Your task to perform on an android device: What's the weather? Image 0: 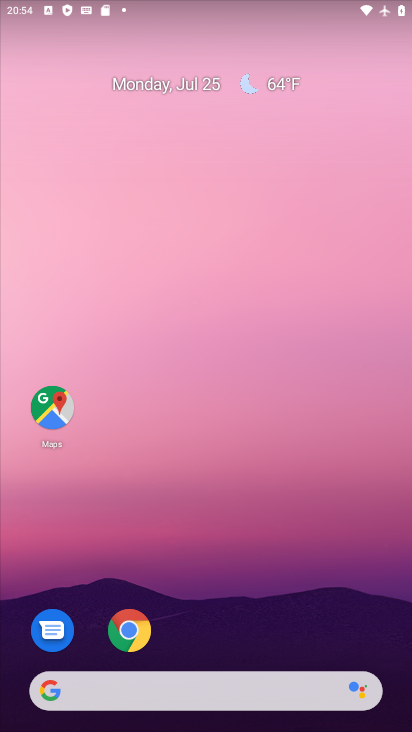
Step 0: click (277, 89)
Your task to perform on an android device: What's the weather? Image 1: 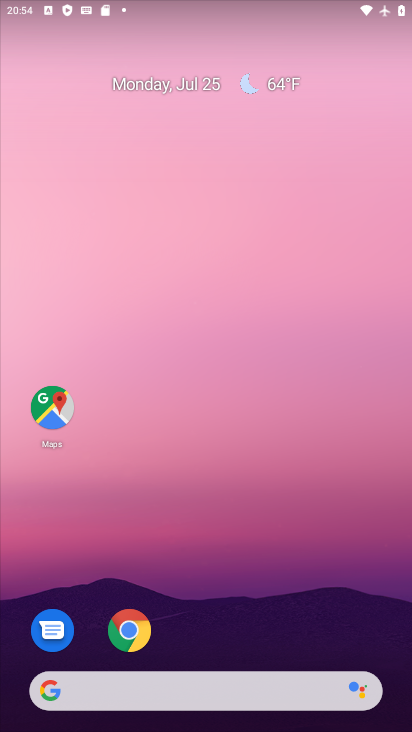
Step 1: click (292, 83)
Your task to perform on an android device: What's the weather? Image 2: 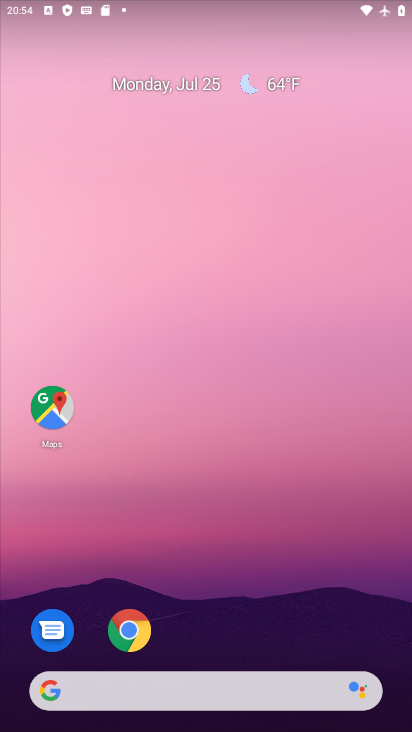
Step 2: click (131, 690)
Your task to perform on an android device: What's the weather? Image 3: 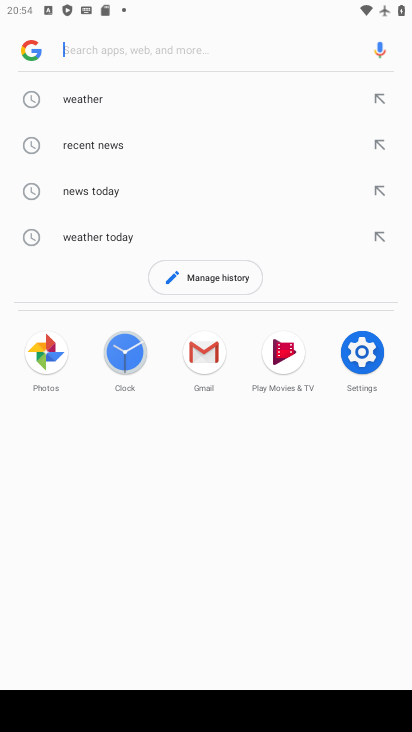
Step 3: click (88, 107)
Your task to perform on an android device: What's the weather? Image 4: 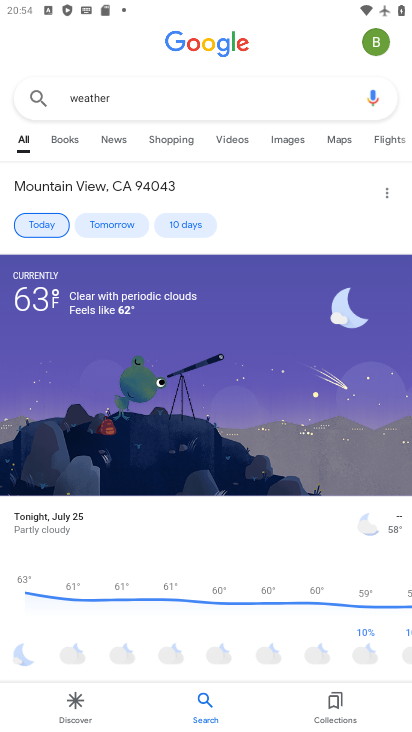
Step 4: task complete